Your task to perform on an android device: star an email in the gmail app Image 0: 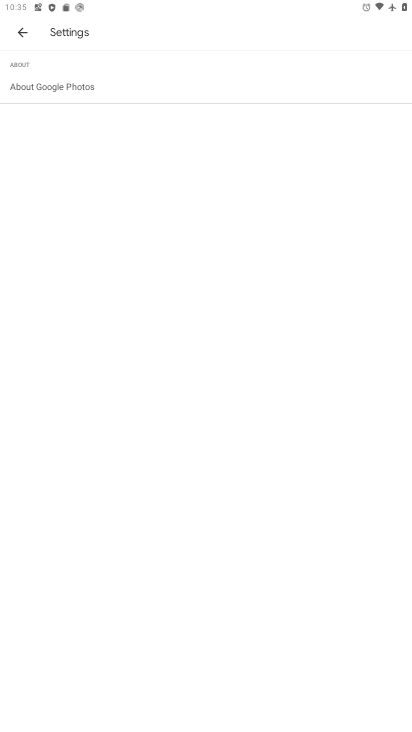
Step 0: press home button
Your task to perform on an android device: star an email in the gmail app Image 1: 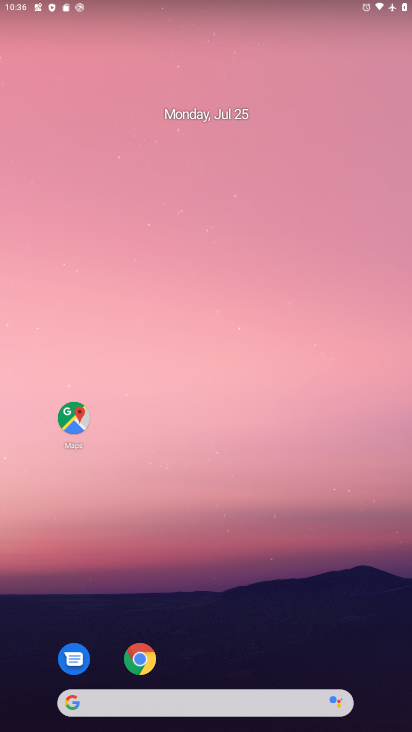
Step 1: drag from (193, 679) to (166, 88)
Your task to perform on an android device: star an email in the gmail app Image 2: 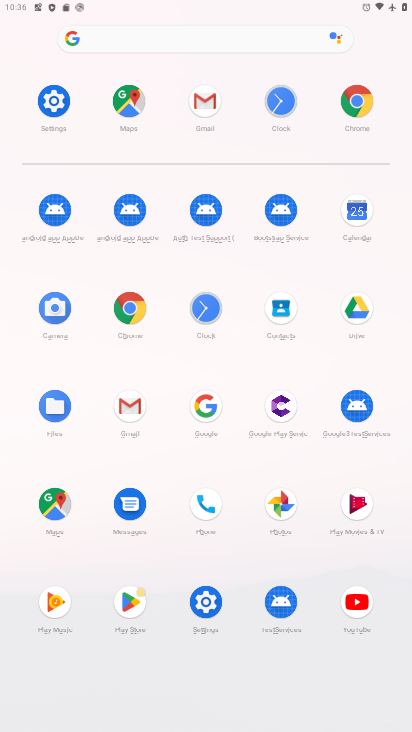
Step 2: click (137, 399)
Your task to perform on an android device: star an email in the gmail app Image 3: 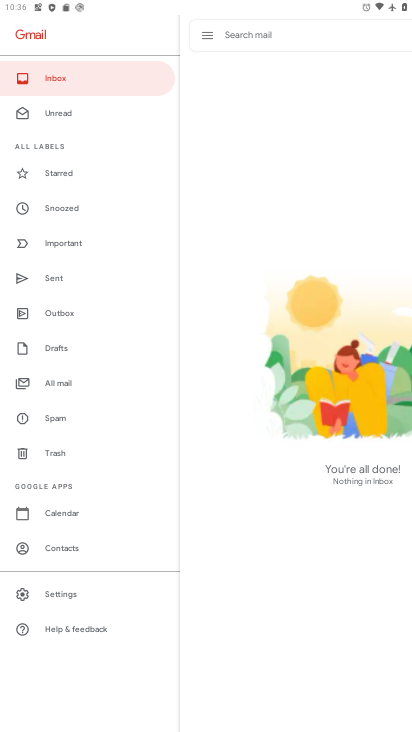
Step 3: click (57, 179)
Your task to perform on an android device: star an email in the gmail app Image 4: 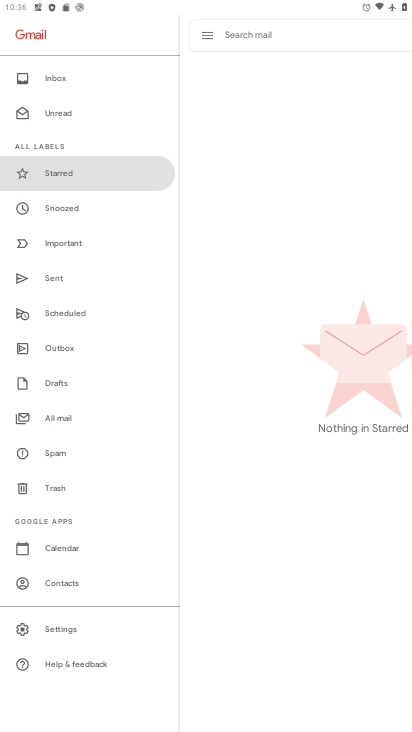
Step 4: drag from (235, 134) to (269, 426)
Your task to perform on an android device: star an email in the gmail app Image 5: 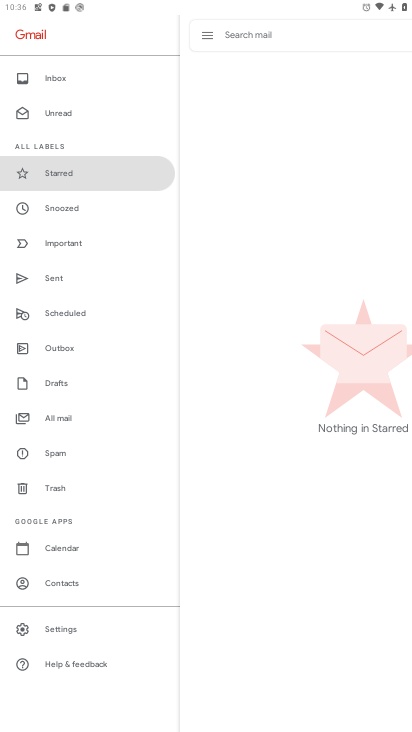
Step 5: click (52, 89)
Your task to perform on an android device: star an email in the gmail app Image 6: 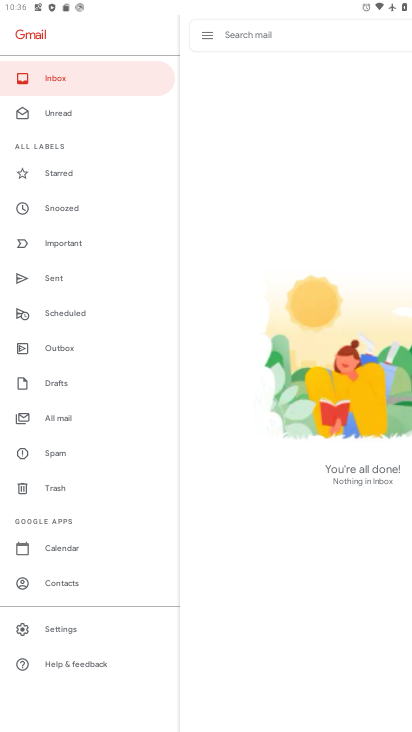
Step 6: task complete